Your task to perform on an android device: Clear all items from cart on amazon.com. Image 0: 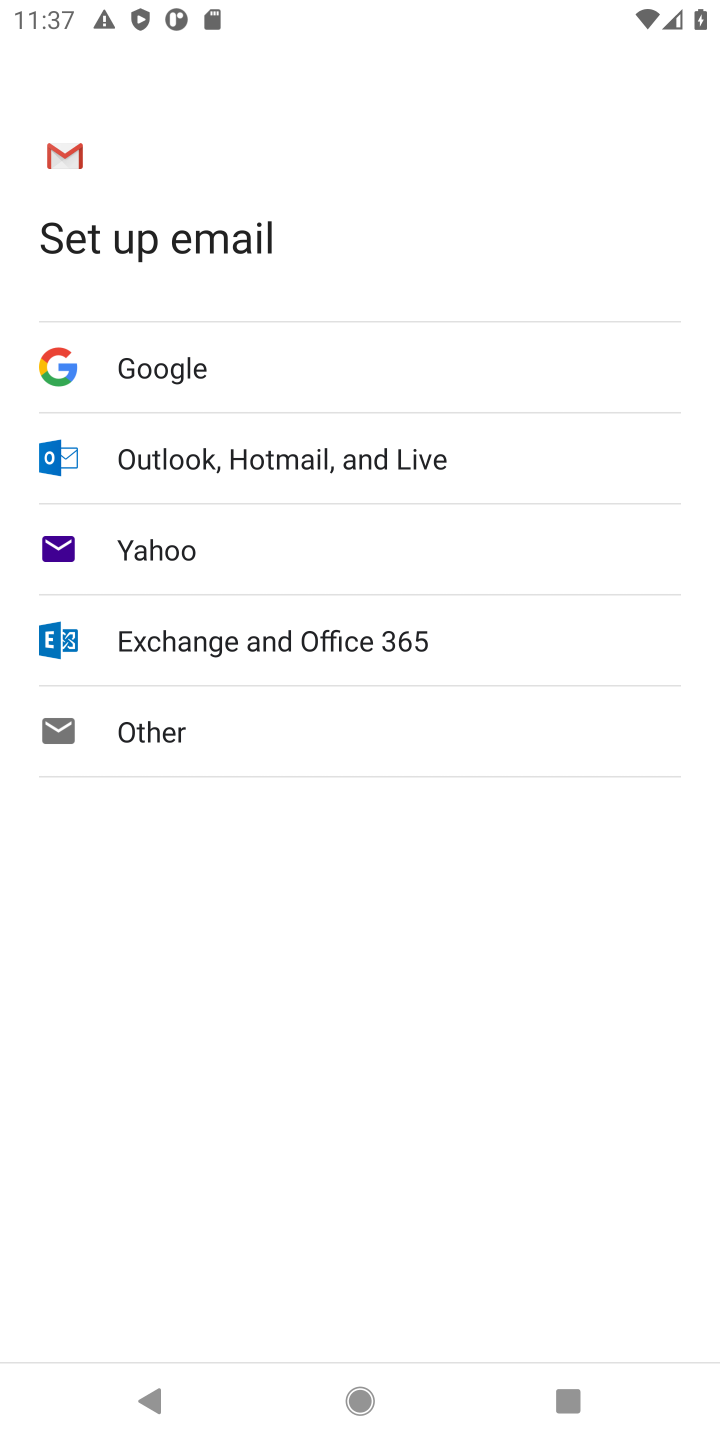
Step 0: press home button
Your task to perform on an android device: Clear all items from cart on amazon.com. Image 1: 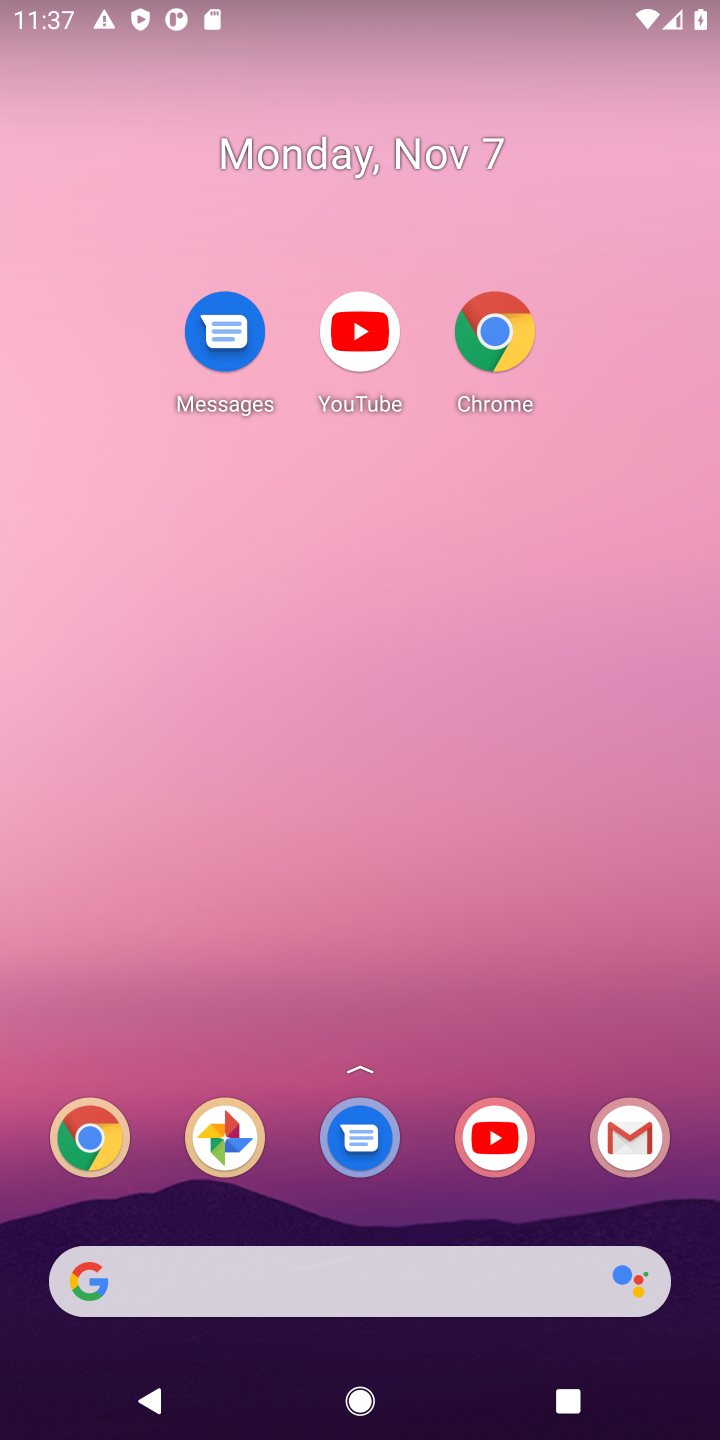
Step 1: drag from (446, 968) to (427, 413)
Your task to perform on an android device: Clear all items from cart on amazon.com. Image 2: 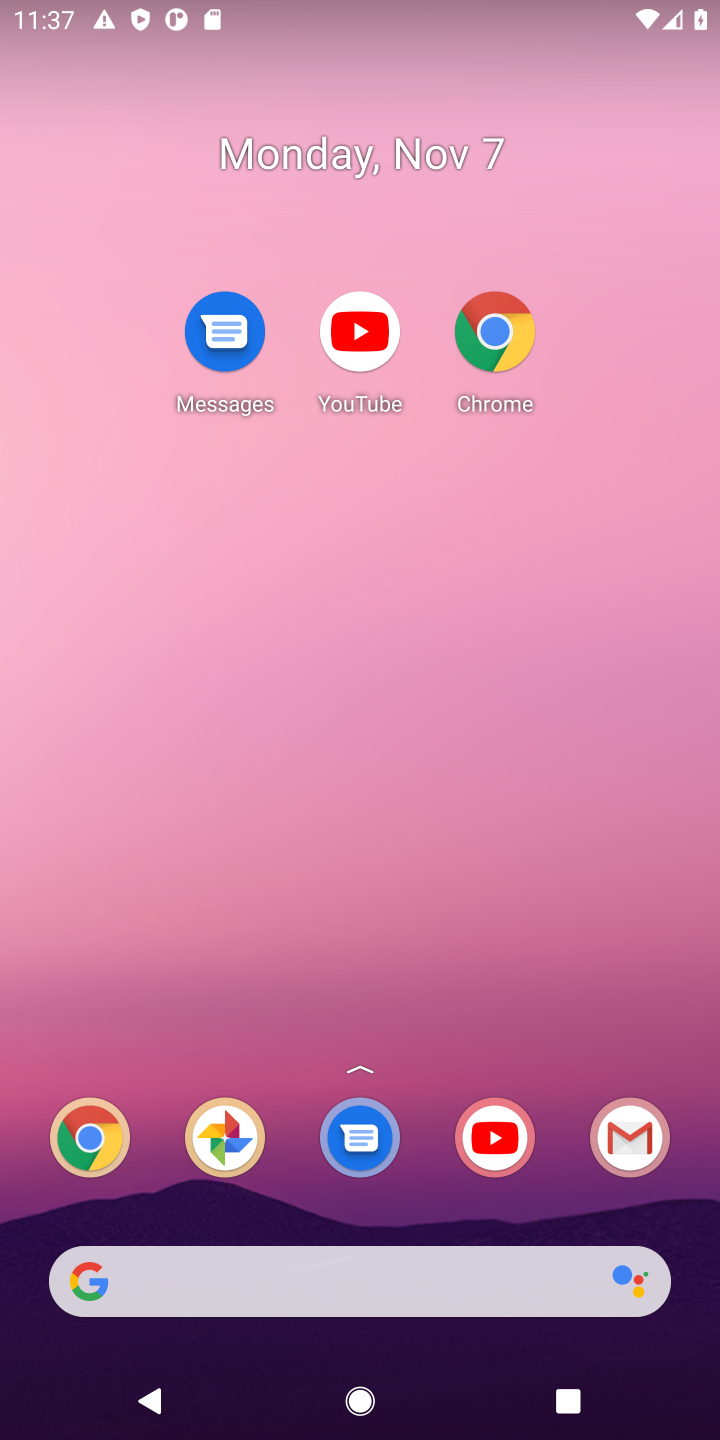
Step 2: drag from (444, 1198) to (436, 490)
Your task to perform on an android device: Clear all items from cart on amazon.com. Image 3: 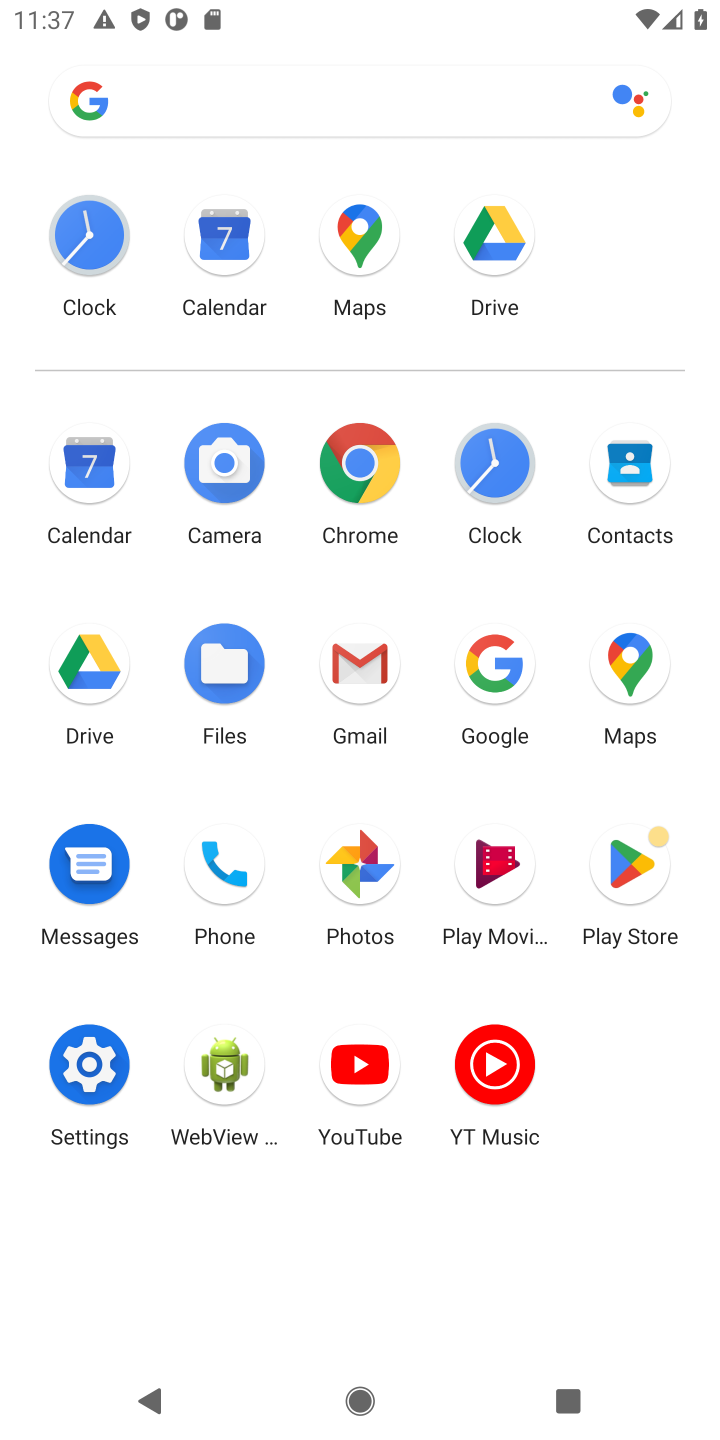
Step 3: click (354, 468)
Your task to perform on an android device: Clear all items from cart on amazon.com. Image 4: 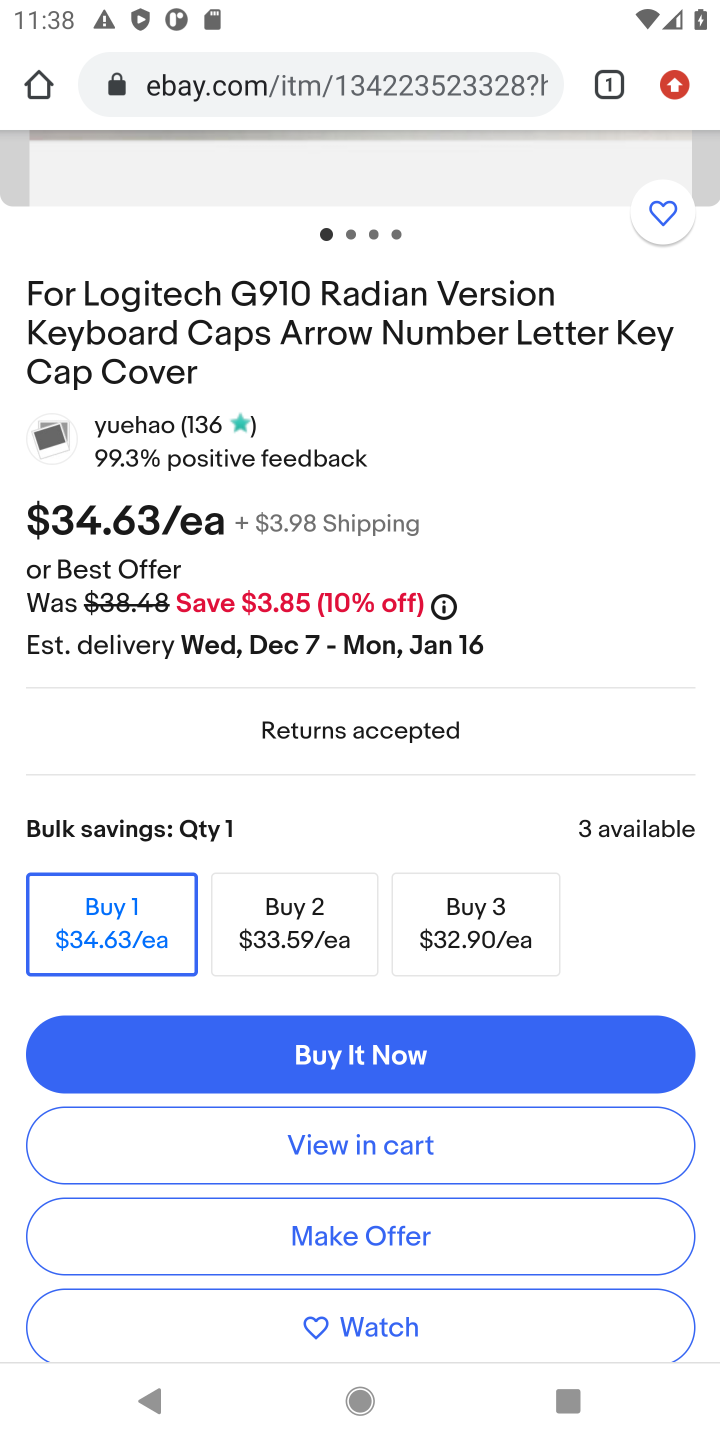
Step 4: click (438, 102)
Your task to perform on an android device: Clear all items from cart on amazon.com. Image 5: 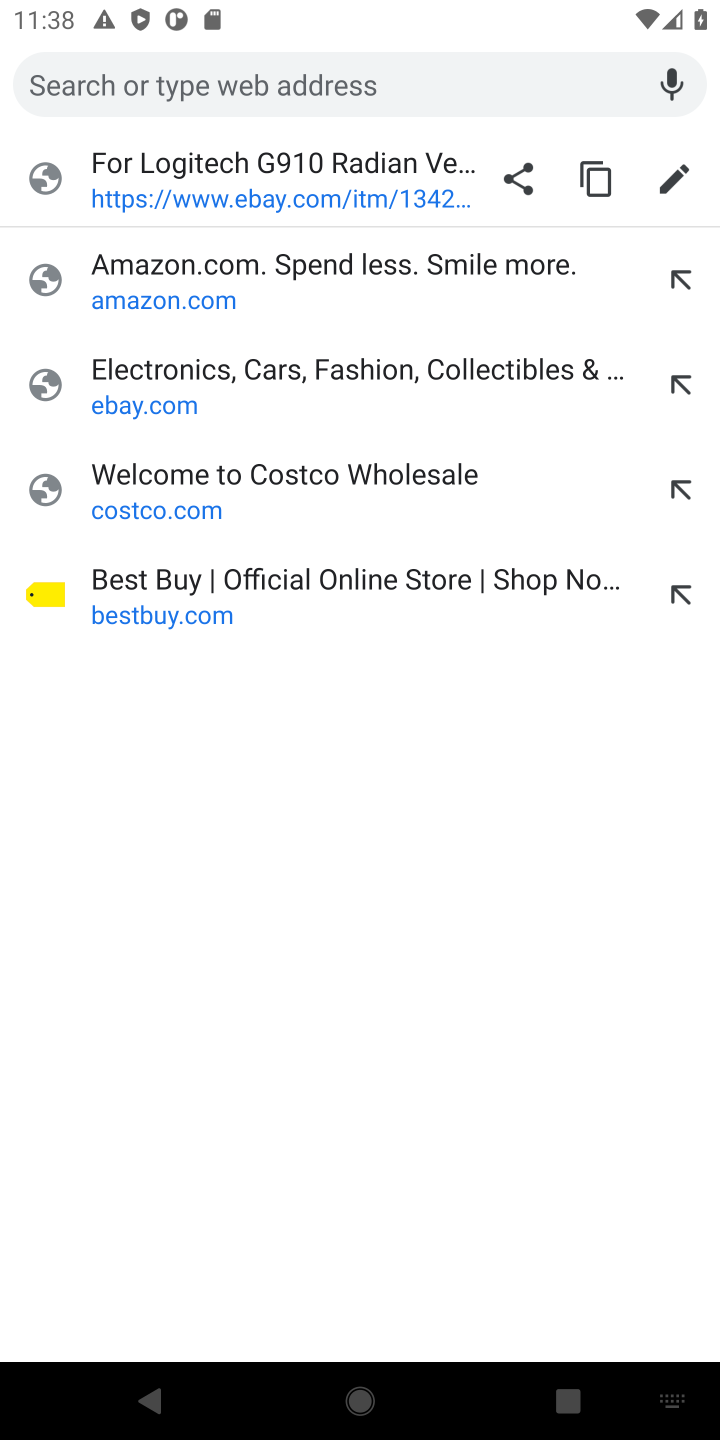
Step 5: type "amazon.com"
Your task to perform on an android device: Clear all items from cart on amazon.com. Image 6: 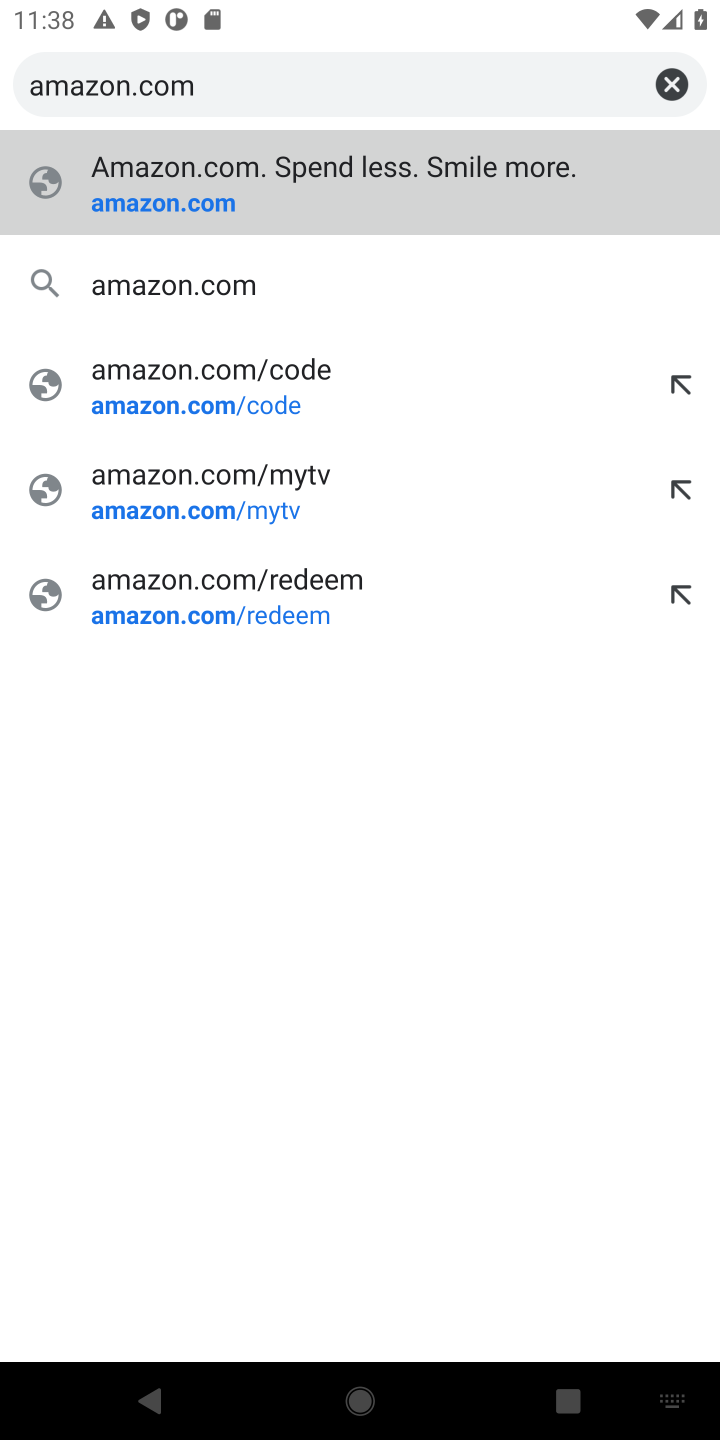
Step 6: press enter
Your task to perform on an android device: Clear all items from cart on amazon.com. Image 7: 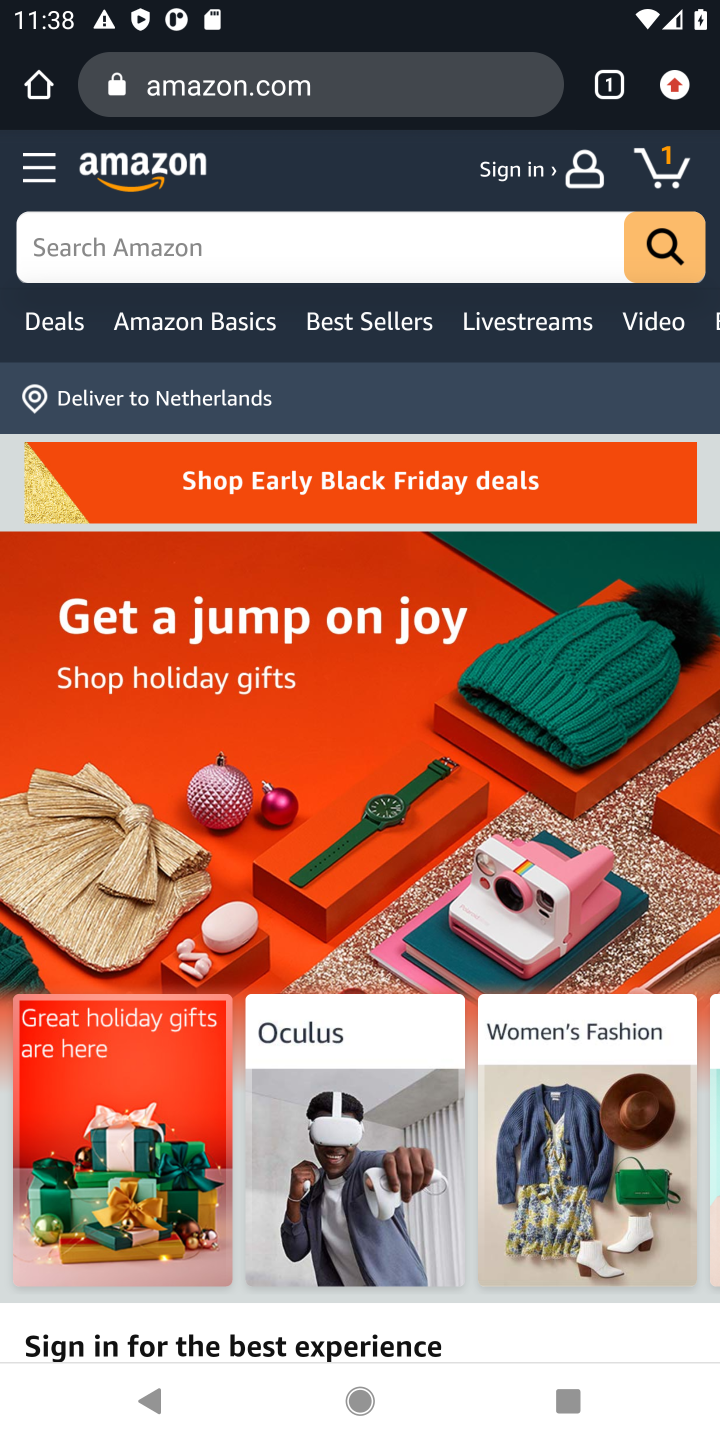
Step 7: click (658, 164)
Your task to perform on an android device: Clear all items from cart on amazon.com. Image 8: 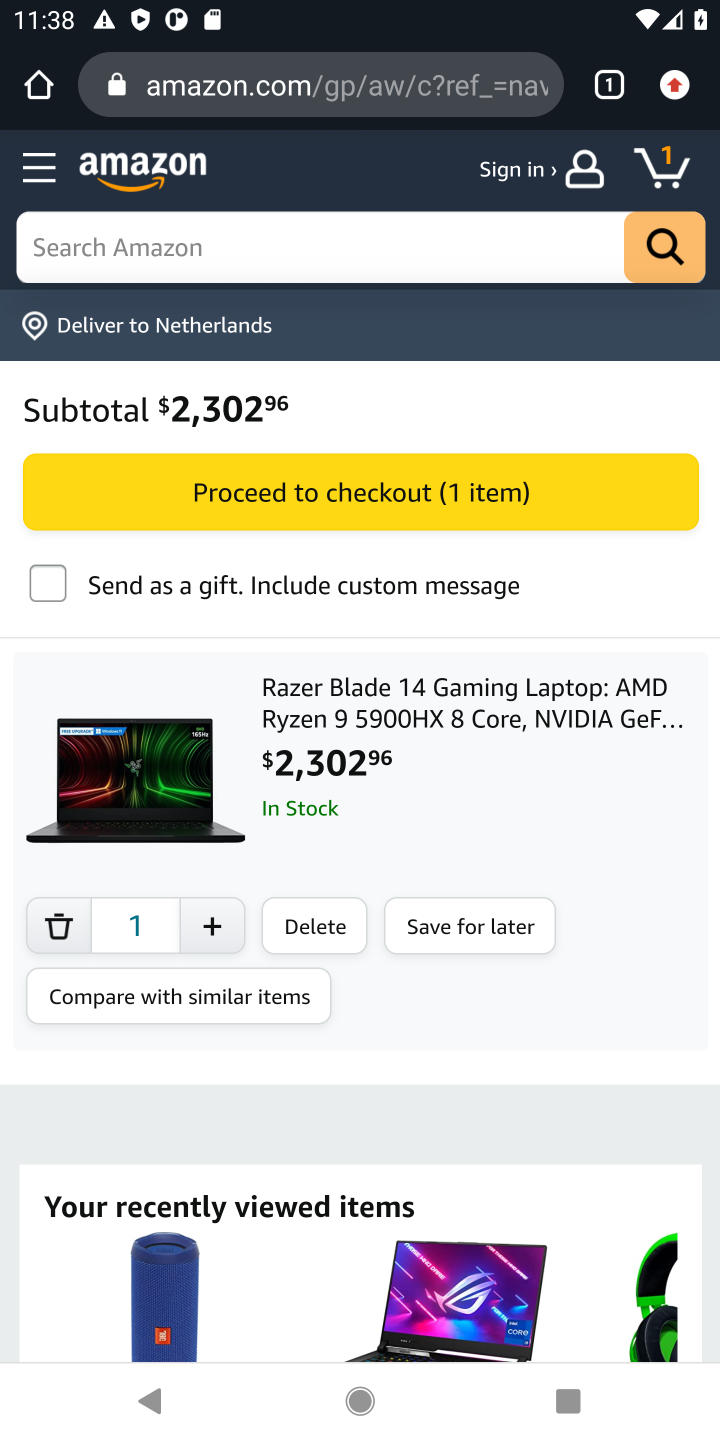
Step 8: click (49, 918)
Your task to perform on an android device: Clear all items from cart on amazon.com. Image 9: 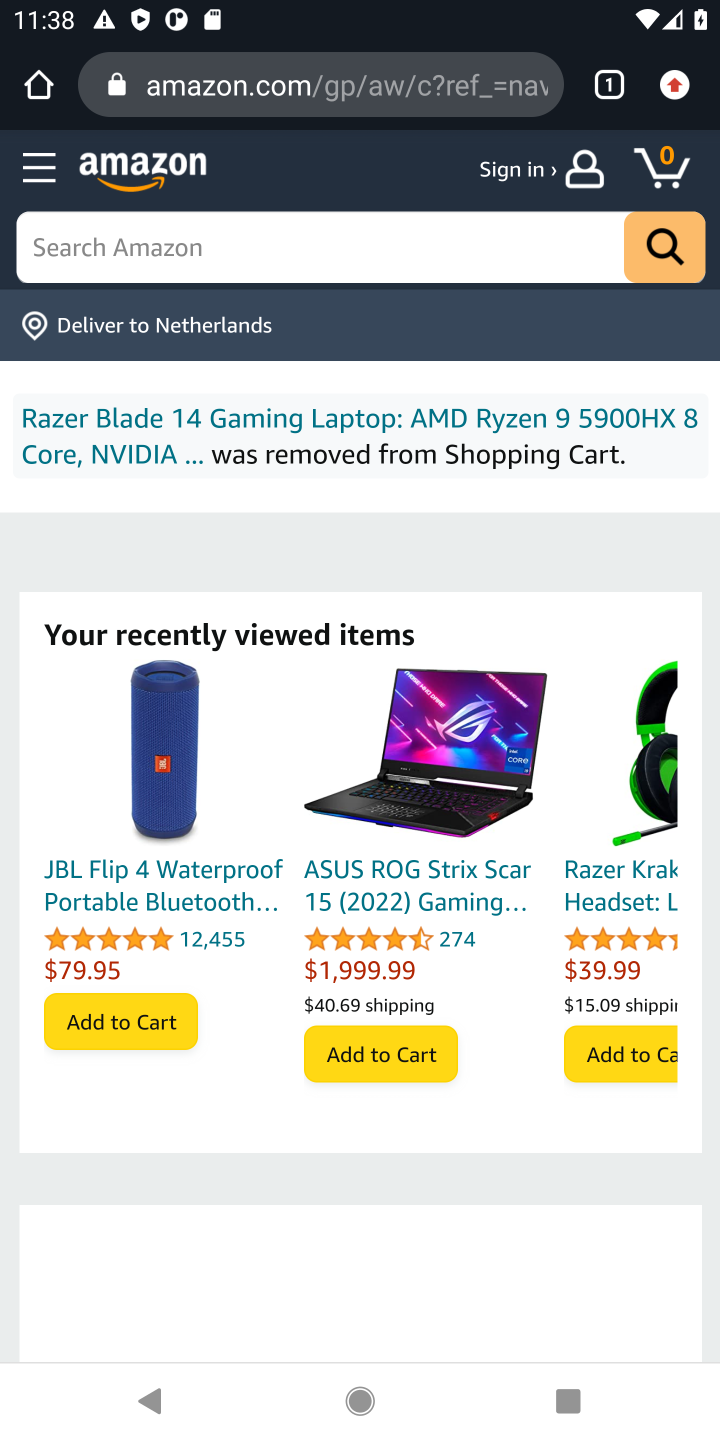
Step 9: task complete